Your task to perform on an android device: turn off location Image 0: 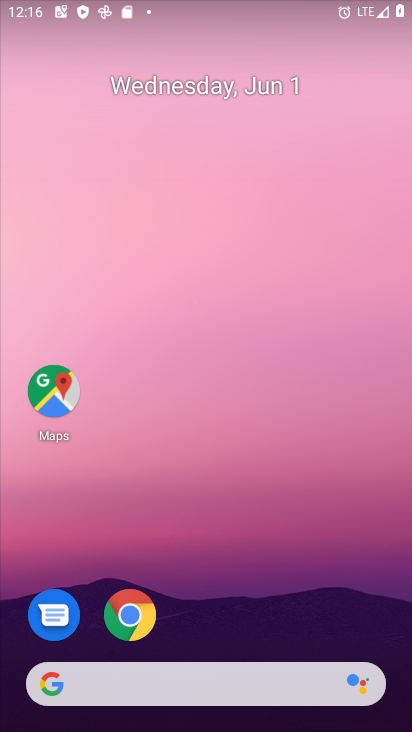
Step 0: drag from (268, 612) to (266, 59)
Your task to perform on an android device: turn off location Image 1: 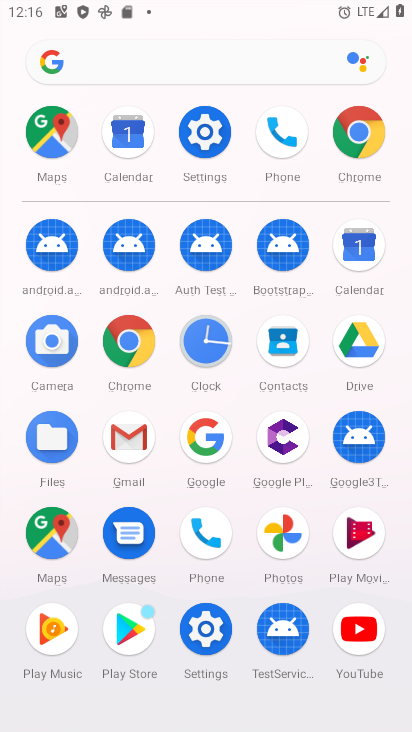
Step 1: click (195, 117)
Your task to perform on an android device: turn off location Image 2: 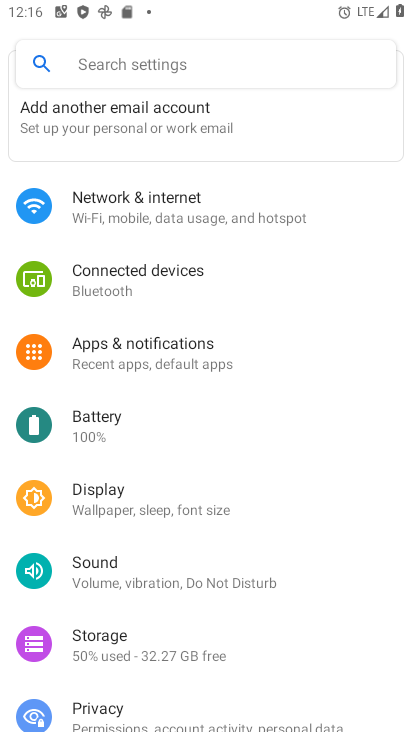
Step 2: drag from (213, 668) to (232, 284)
Your task to perform on an android device: turn off location Image 3: 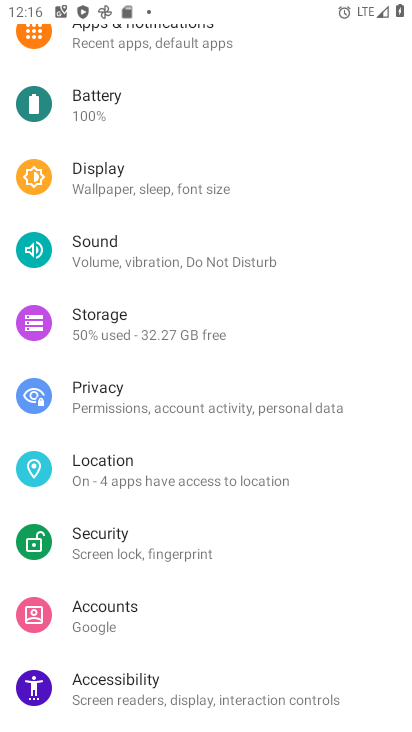
Step 3: click (103, 479)
Your task to perform on an android device: turn off location Image 4: 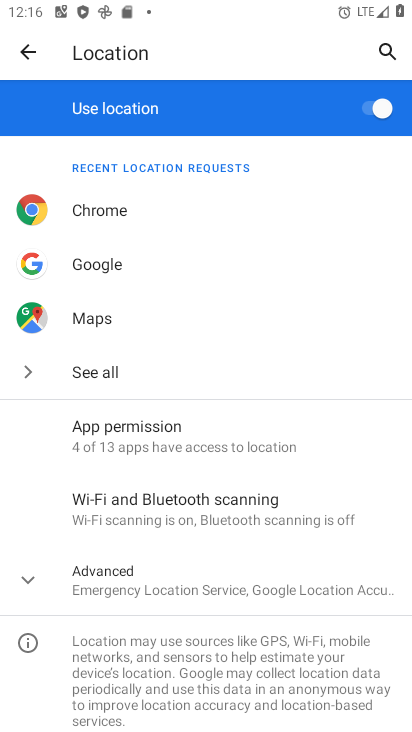
Step 4: click (360, 120)
Your task to perform on an android device: turn off location Image 5: 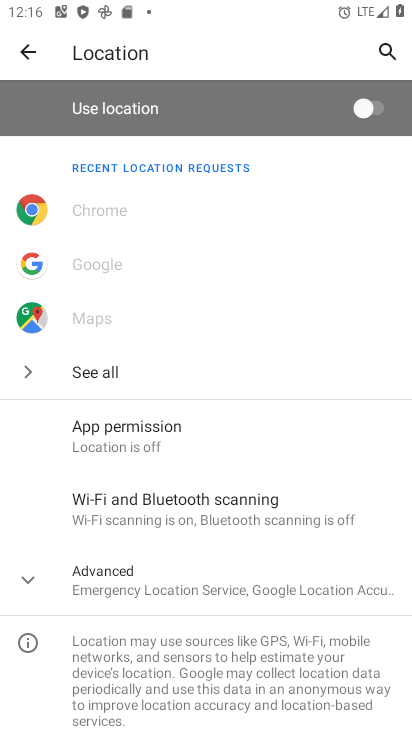
Step 5: task complete